Your task to perform on an android device: Do I have any events tomorrow? Image 0: 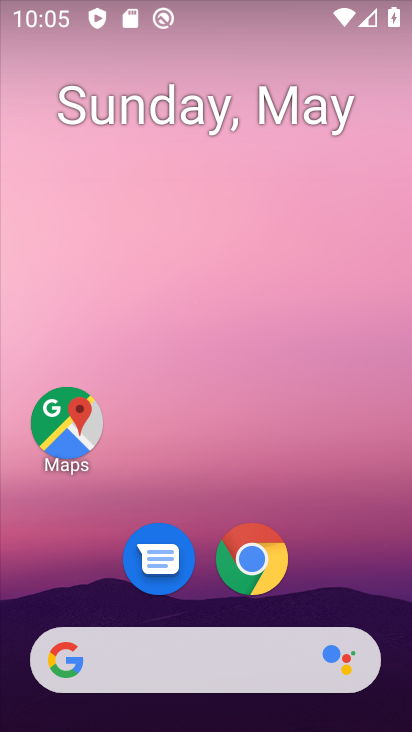
Step 0: drag from (336, 588) to (334, 58)
Your task to perform on an android device: Do I have any events tomorrow? Image 1: 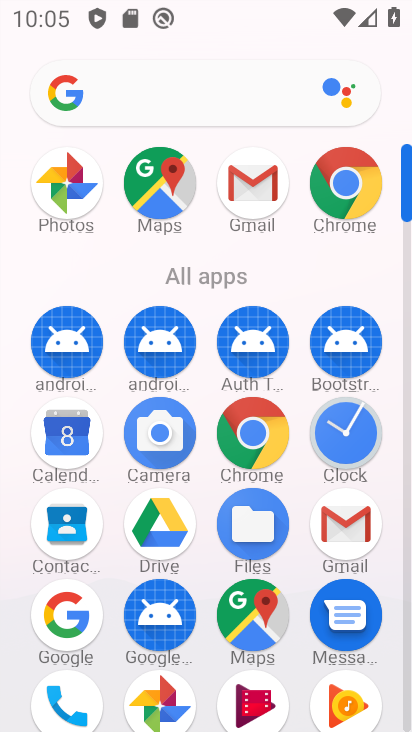
Step 1: click (83, 451)
Your task to perform on an android device: Do I have any events tomorrow? Image 2: 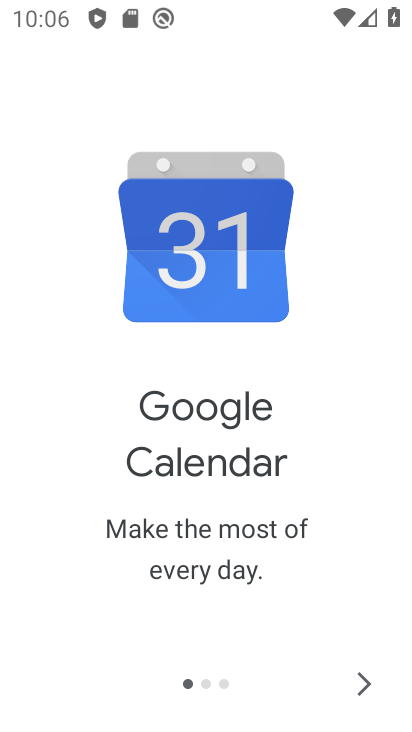
Step 2: click (357, 691)
Your task to perform on an android device: Do I have any events tomorrow? Image 3: 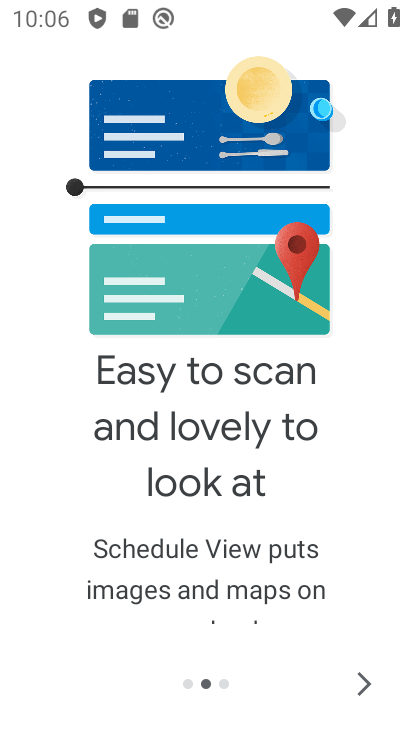
Step 3: click (348, 676)
Your task to perform on an android device: Do I have any events tomorrow? Image 4: 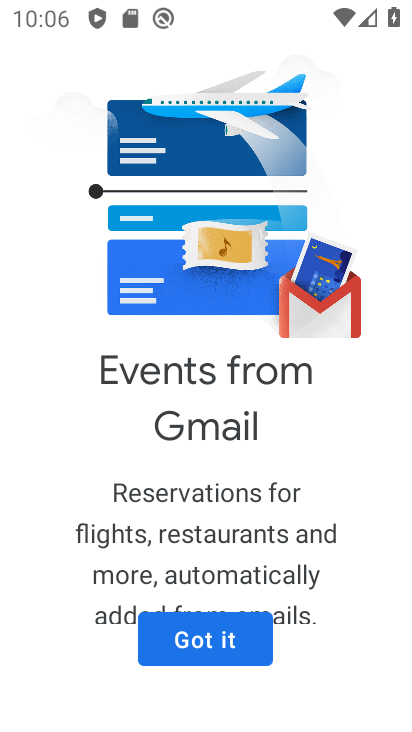
Step 4: click (202, 641)
Your task to perform on an android device: Do I have any events tomorrow? Image 5: 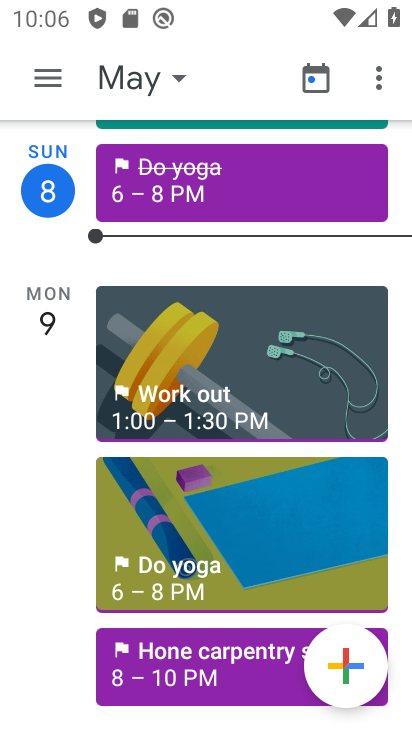
Step 5: click (59, 80)
Your task to perform on an android device: Do I have any events tomorrow? Image 6: 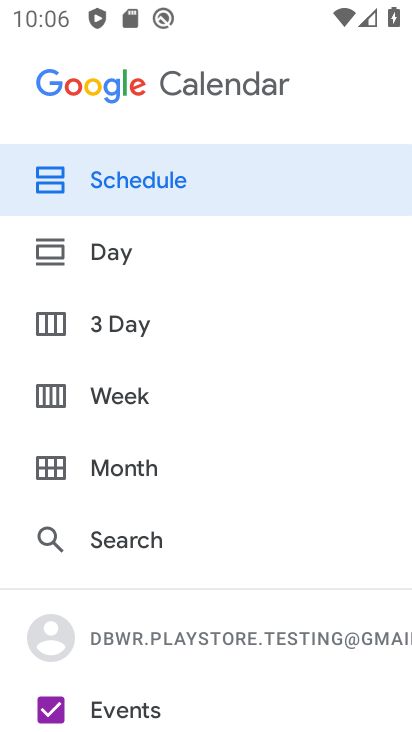
Step 6: click (129, 184)
Your task to perform on an android device: Do I have any events tomorrow? Image 7: 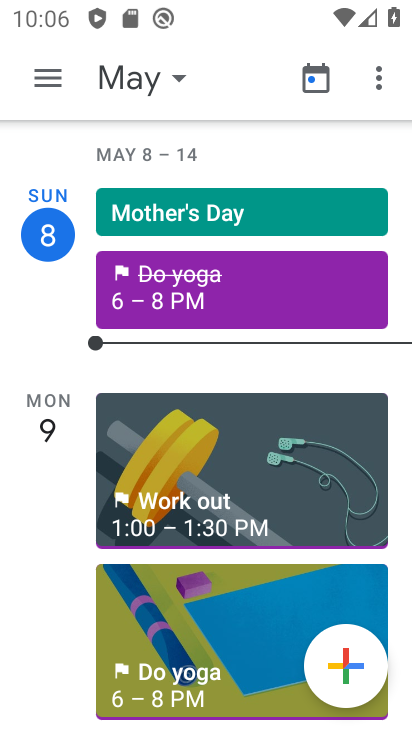
Step 7: click (148, 74)
Your task to perform on an android device: Do I have any events tomorrow? Image 8: 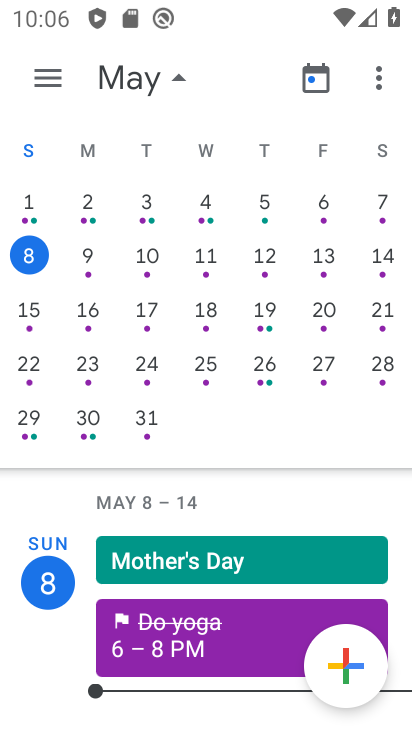
Step 8: click (83, 263)
Your task to perform on an android device: Do I have any events tomorrow? Image 9: 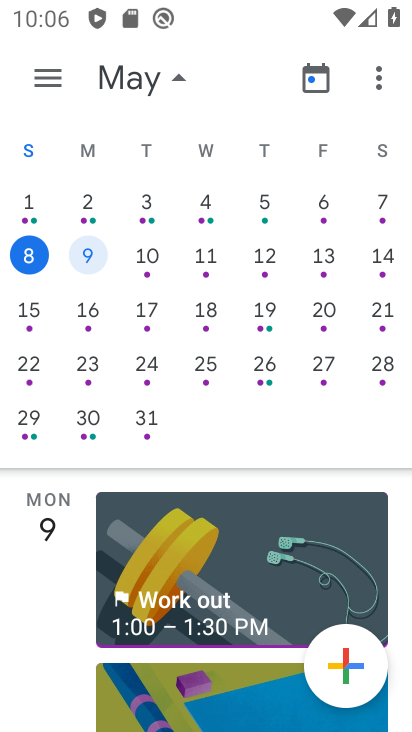
Step 9: drag from (30, 676) to (43, 621)
Your task to perform on an android device: Do I have any events tomorrow? Image 10: 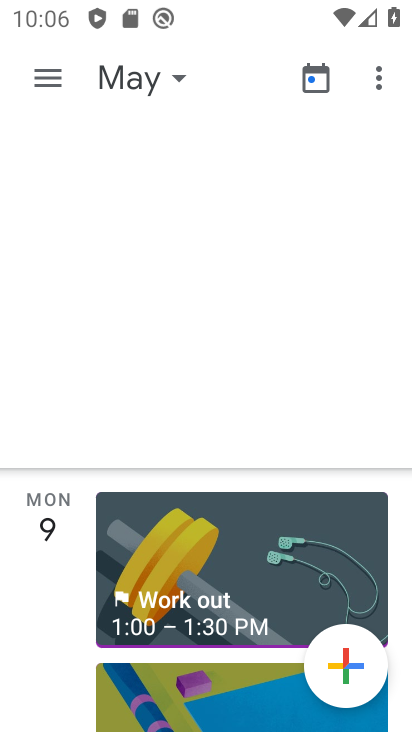
Step 10: click (183, 74)
Your task to perform on an android device: Do I have any events tomorrow? Image 11: 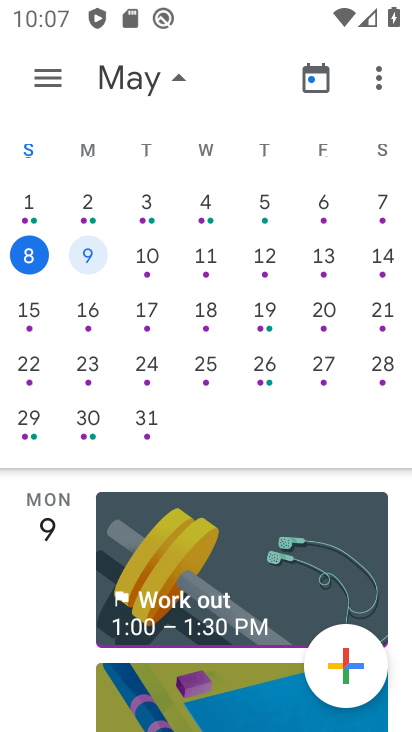
Step 11: click (53, 74)
Your task to perform on an android device: Do I have any events tomorrow? Image 12: 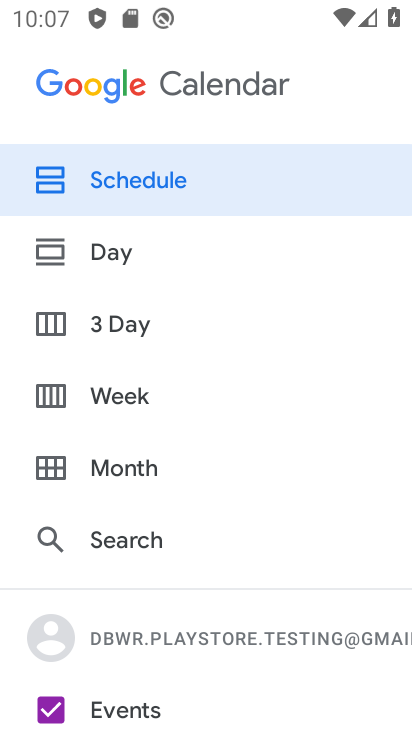
Step 12: click (132, 181)
Your task to perform on an android device: Do I have any events tomorrow? Image 13: 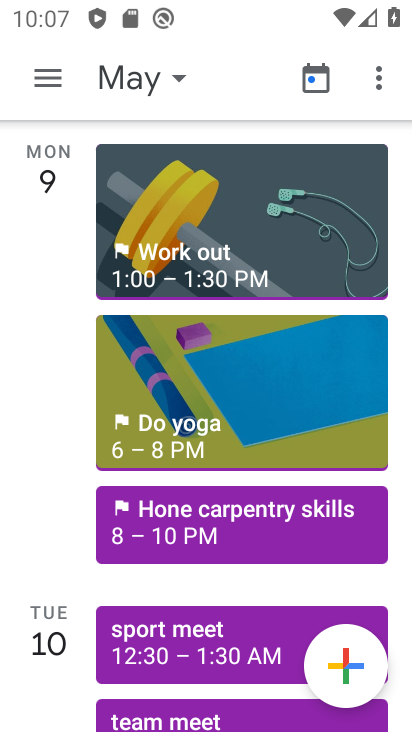
Step 13: task complete